Your task to perform on an android device: turn on notifications settings in the gmail app Image 0: 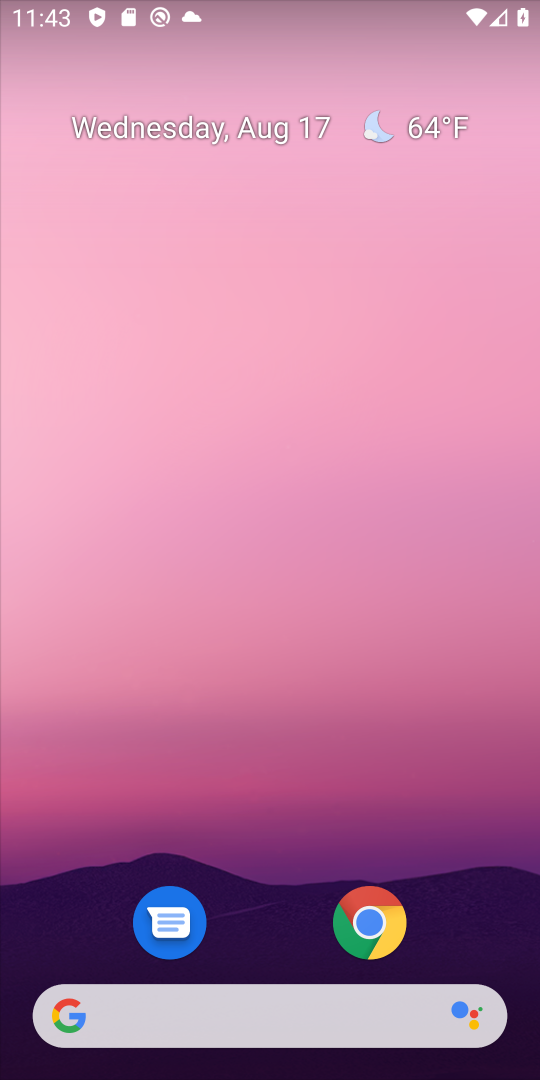
Step 0: drag from (266, 937) to (337, 345)
Your task to perform on an android device: turn on notifications settings in the gmail app Image 1: 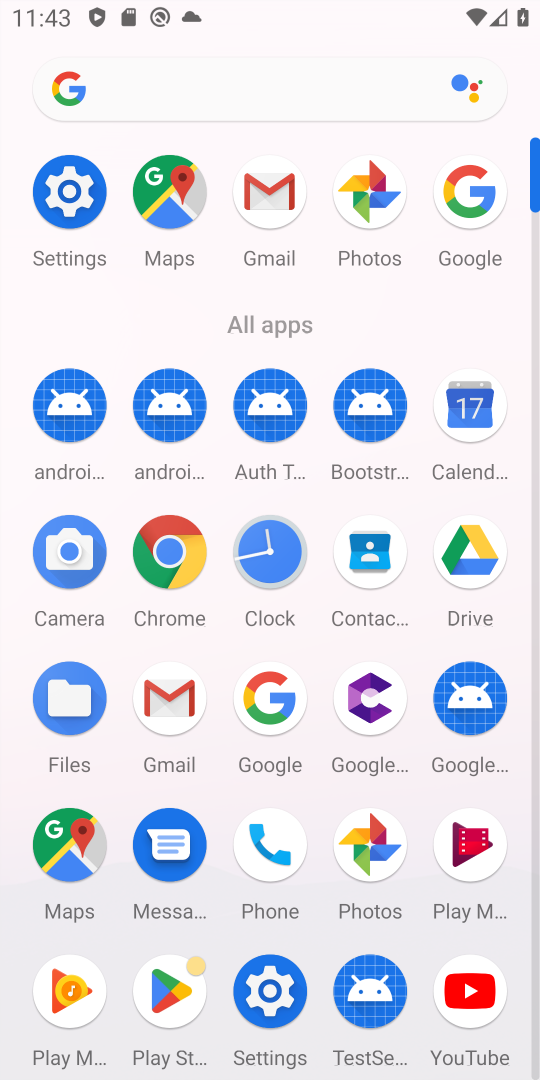
Step 1: click (263, 196)
Your task to perform on an android device: turn on notifications settings in the gmail app Image 2: 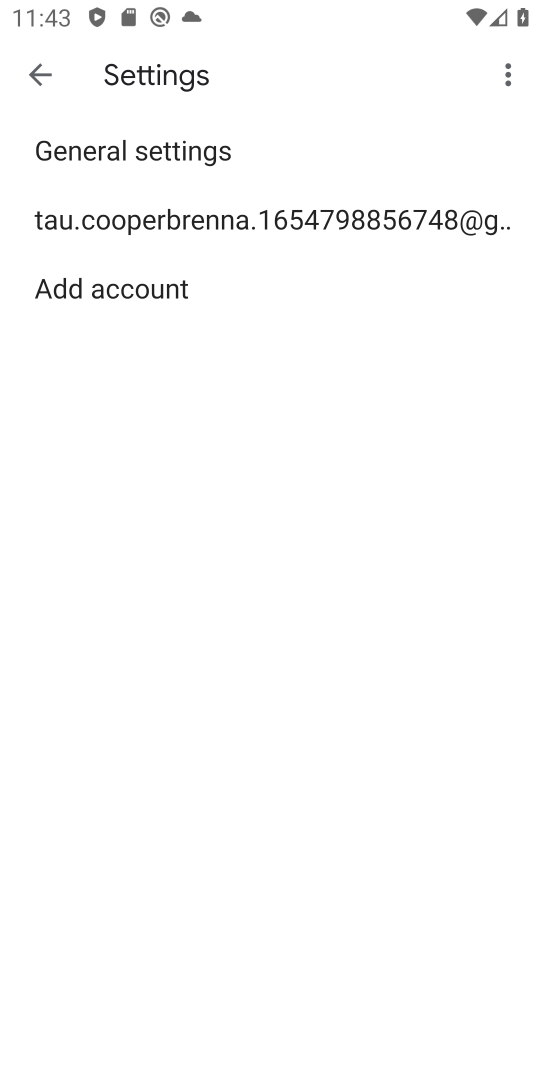
Step 2: click (95, 146)
Your task to perform on an android device: turn on notifications settings in the gmail app Image 3: 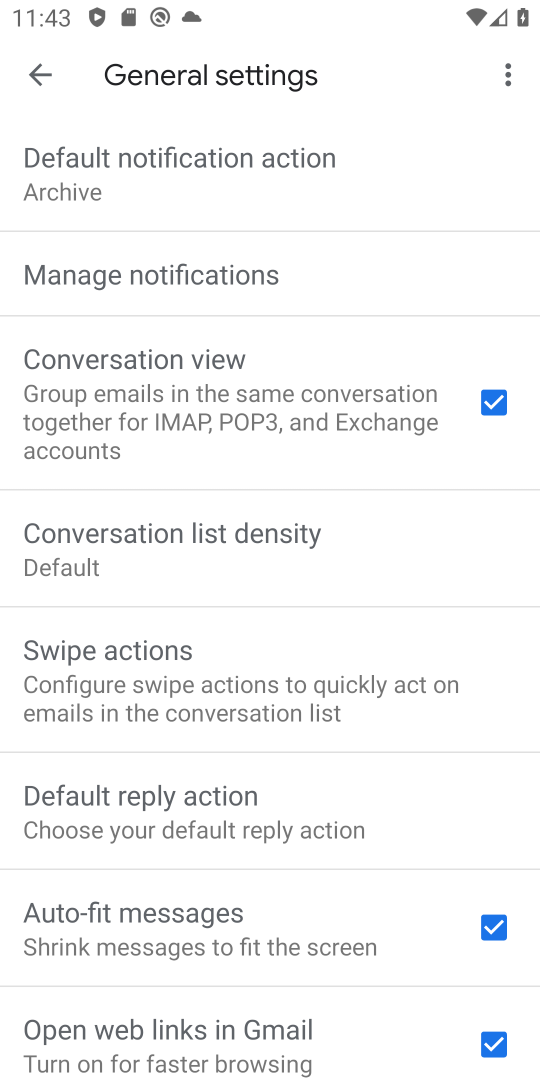
Step 3: click (110, 269)
Your task to perform on an android device: turn on notifications settings in the gmail app Image 4: 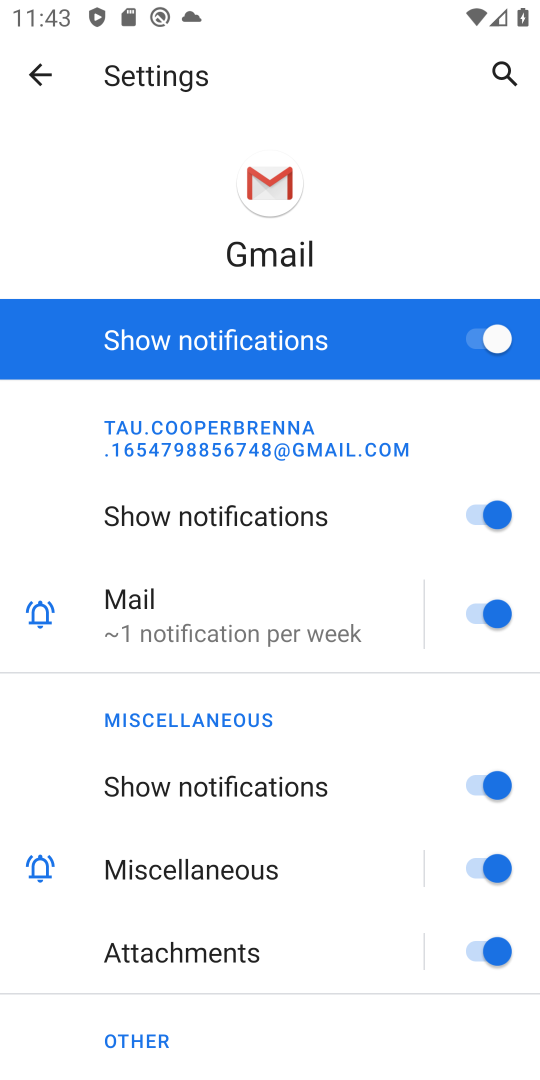
Step 4: task complete